Your task to perform on an android device: Go to Amazon Image 0: 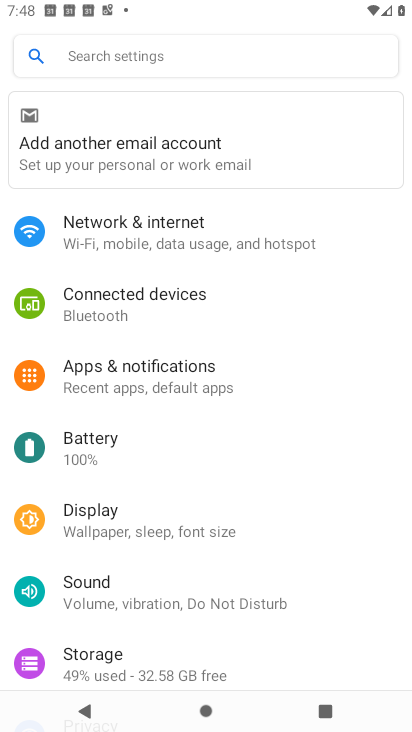
Step 0: press home button
Your task to perform on an android device: Go to Amazon Image 1: 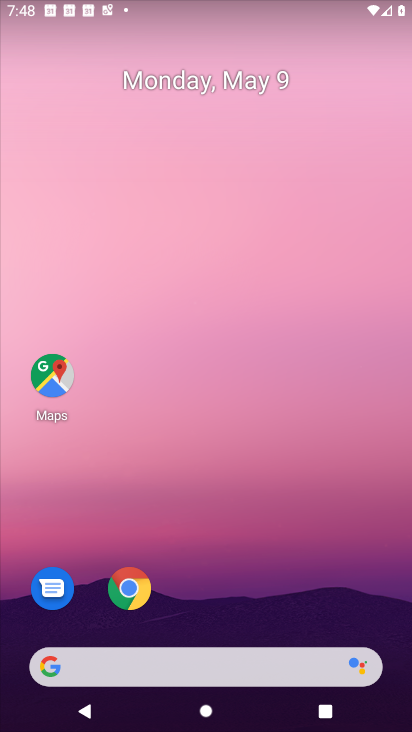
Step 1: click (131, 589)
Your task to perform on an android device: Go to Amazon Image 2: 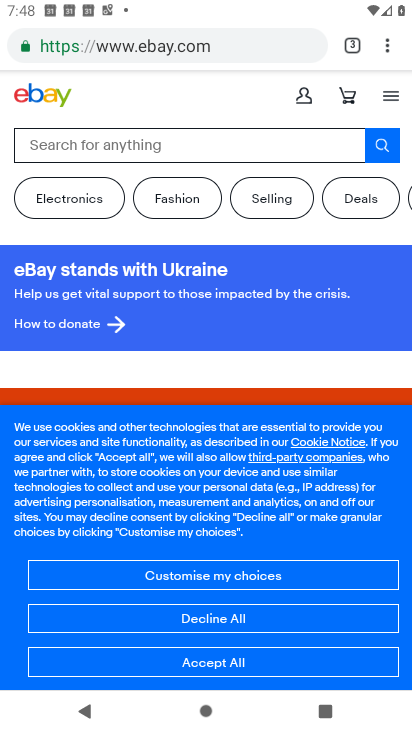
Step 2: drag from (381, 49) to (315, 90)
Your task to perform on an android device: Go to Amazon Image 3: 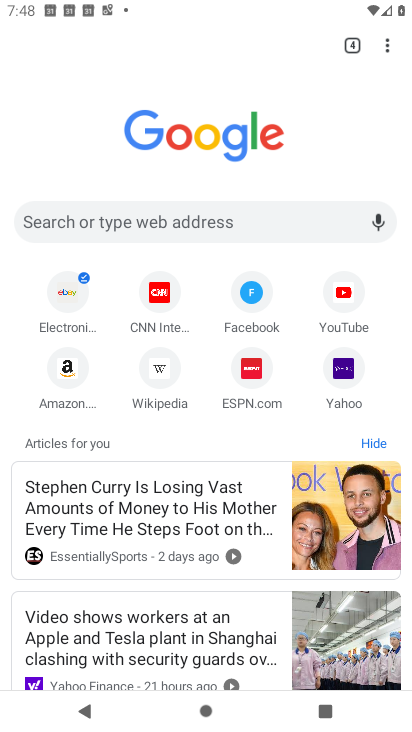
Step 3: click (68, 374)
Your task to perform on an android device: Go to Amazon Image 4: 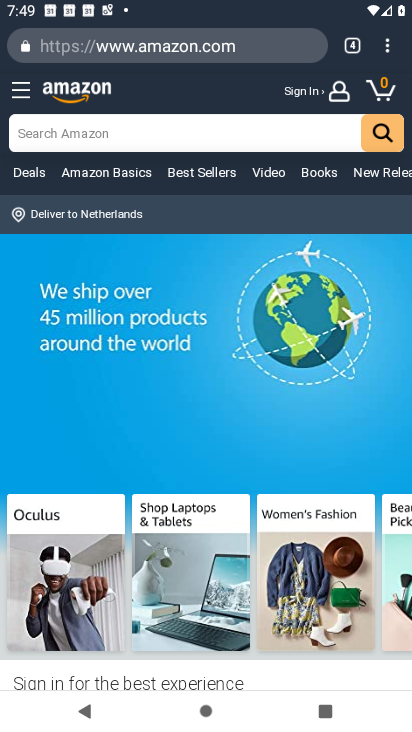
Step 4: task complete